Your task to perform on an android device: What's on my calendar tomorrow? Image 0: 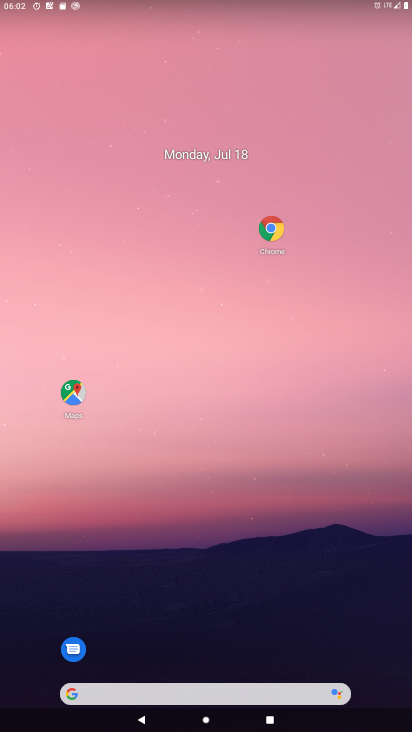
Step 0: click (185, 162)
Your task to perform on an android device: What's on my calendar tomorrow? Image 1: 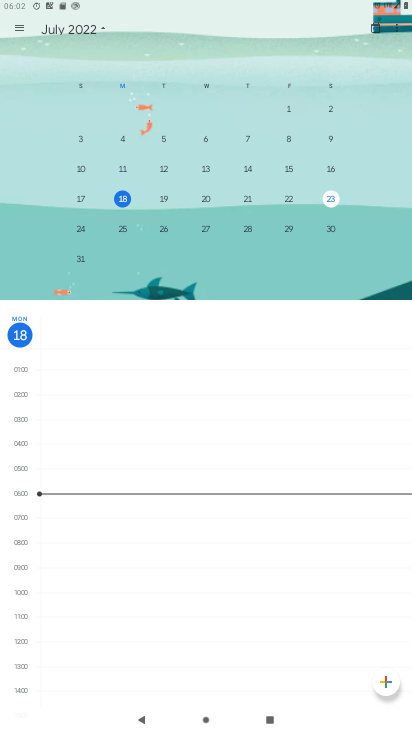
Step 1: task complete